Your task to perform on an android device: Open Chrome and go to the settings page Image 0: 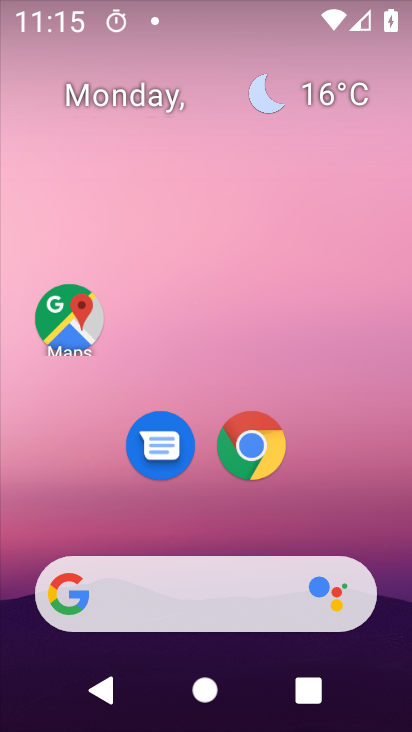
Step 0: click (244, 436)
Your task to perform on an android device: Open Chrome and go to the settings page Image 1: 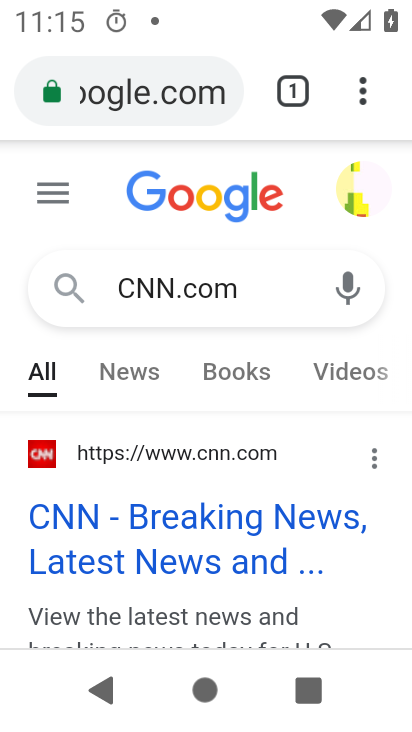
Step 1: click (364, 87)
Your task to perform on an android device: Open Chrome and go to the settings page Image 2: 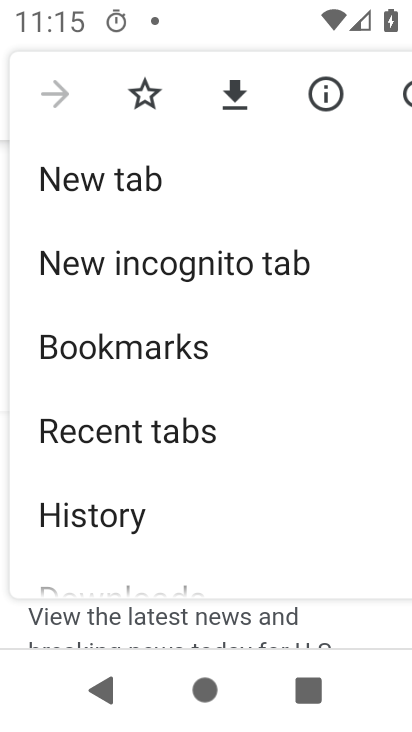
Step 2: drag from (170, 539) to (233, 10)
Your task to perform on an android device: Open Chrome and go to the settings page Image 3: 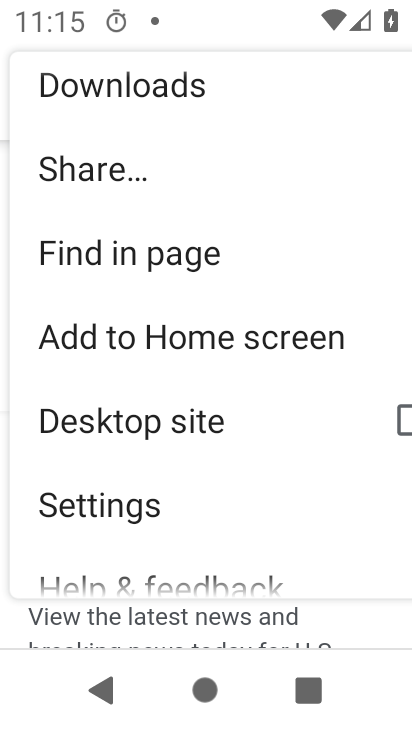
Step 3: click (125, 515)
Your task to perform on an android device: Open Chrome and go to the settings page Image 4: 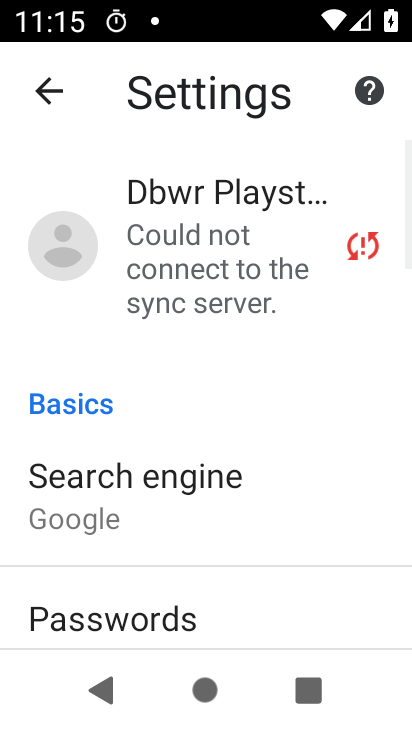
Step 4: task complete